Your task to perform on an android device: Open display settings Image 0: 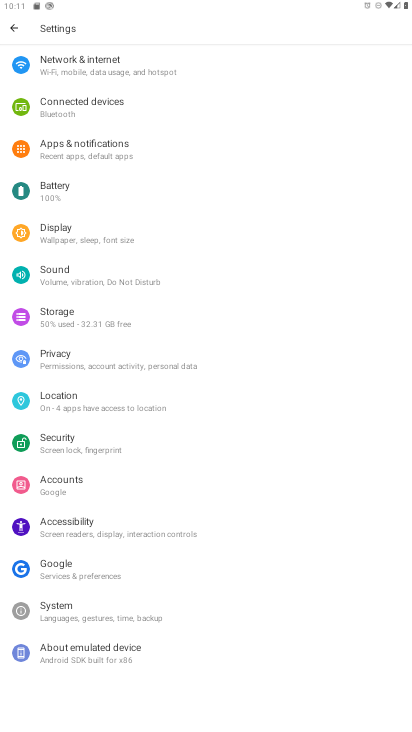
Step 0: press home button
Your task to perform on an android device: Open display settings Image 1: 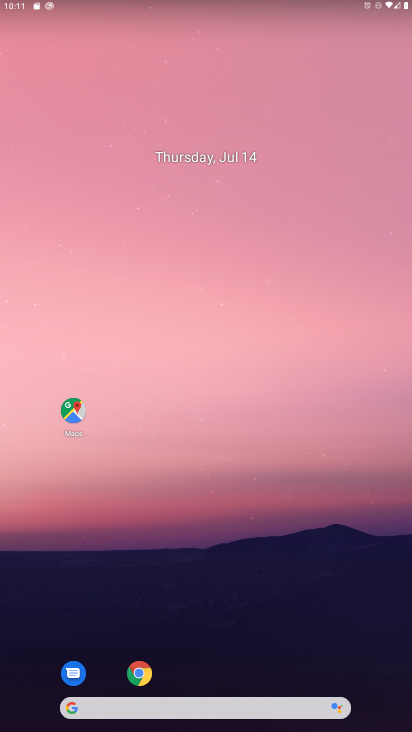
Step 1: drag from (226, 709) to (246, 293)
Your task to perform on an android device: Open display settings Image 2: 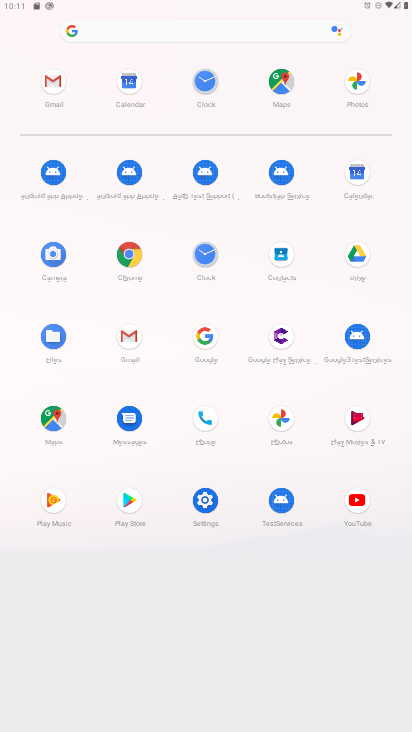
Step 2: click (204, 504)
Your task to perform on an android device: Open display settings Image 3: 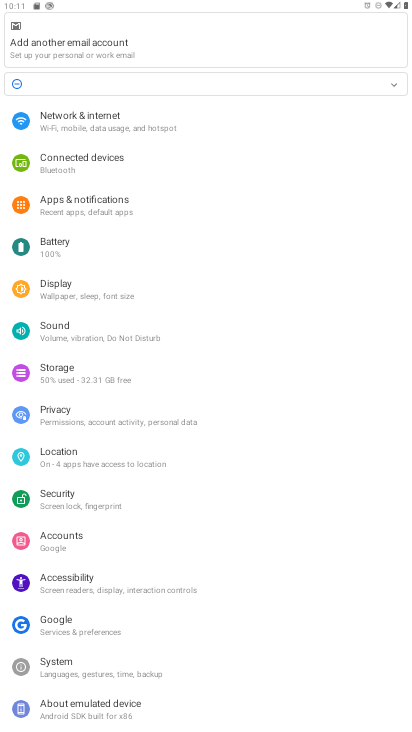
Step 3: click (89, 296)
Your task to perform on an android device: Open display settings Image 4: 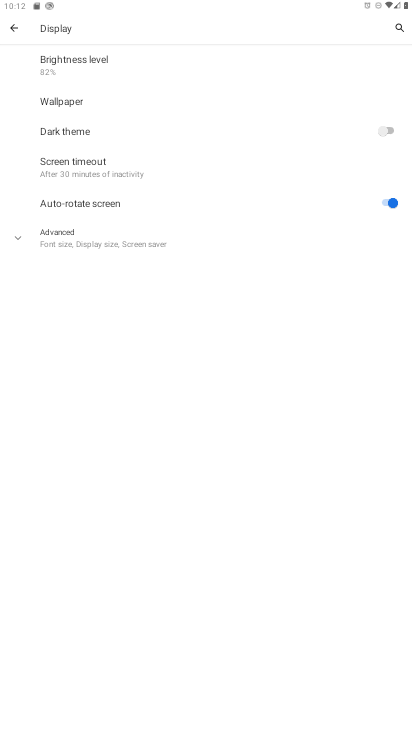
Step 4: task complete